Your task to perform on an android device: turn on javascript in the chrome app Image 0: 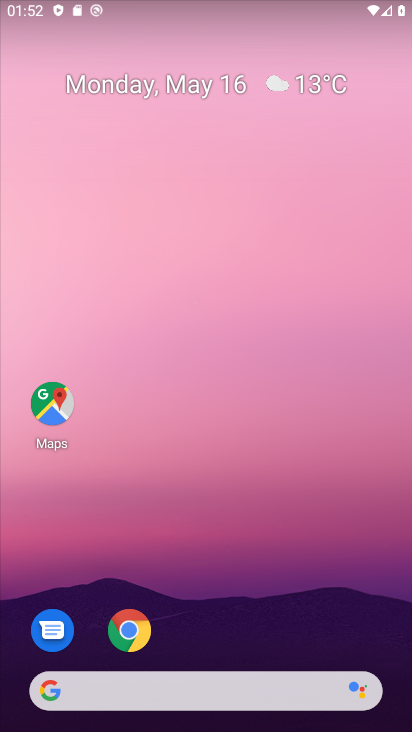
Step 0: drag from (316, 615) to (333, 150)
Your task to perform on an android device: turn on javascript in the chrome app Image 1: 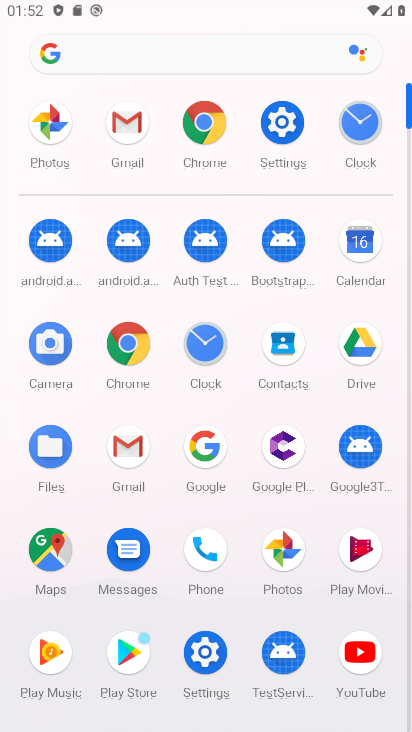
Step 1: click (194, 142)
Your task to perform on an android device: turn on javascript in the chrome app Image 2: 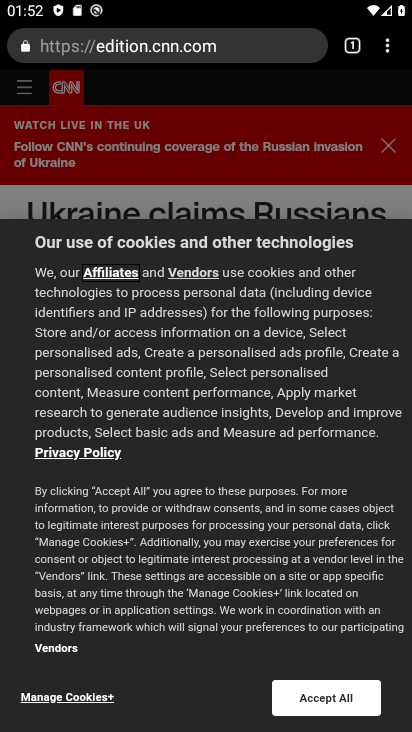
Step 2: drag from (395, 53) to (258, 566)
Your task to perform on an android device: turn on javascript in the chrome app Image 3: 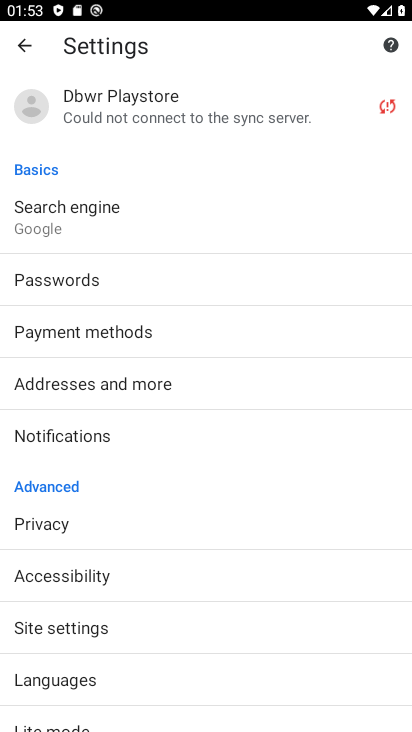
Step 3: click (100, 631)
Your task to perform on an android device: turn on javascript in the chrome app Image 4: 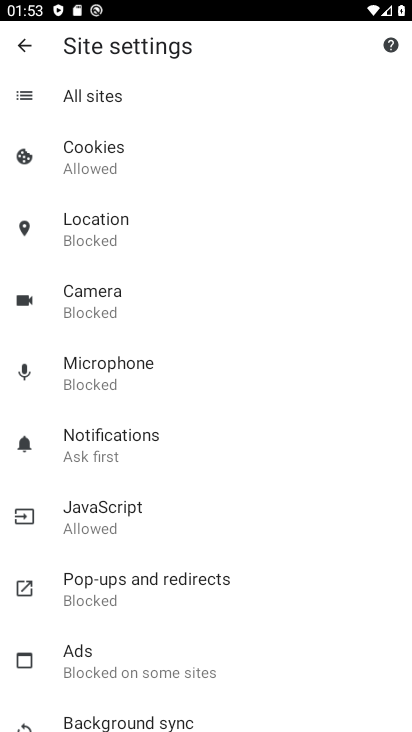
Step 4: click (144, 524)
Your task to perform on an android device: turn on javascript in the chrome app Image 5: 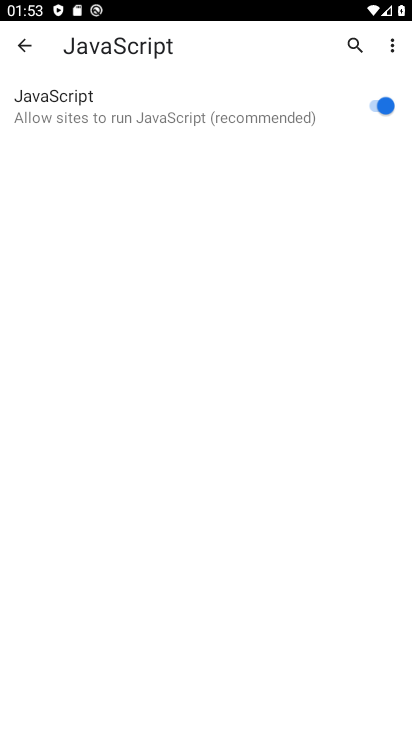
Step 5: task complete